Your task to perform on an android device: Search for pizza restaurants on Maps Image 0: 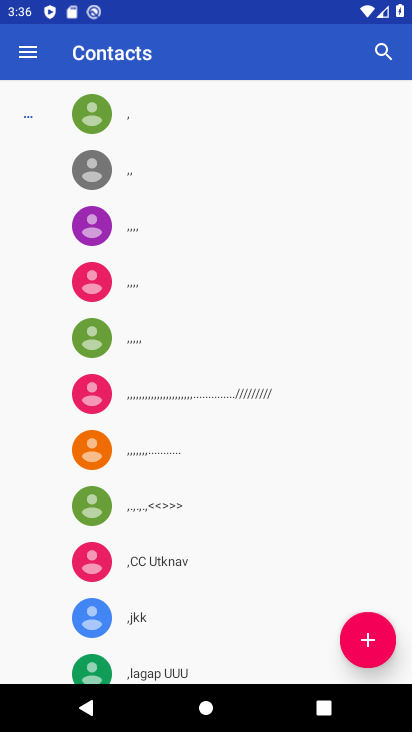
Step 0: press home button
Your task to perform on an android device: Search for pizza restaurants on Maps Image 1: 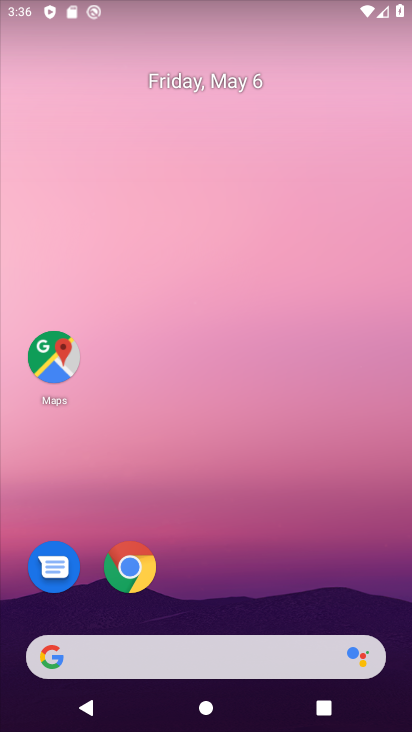
Step 1: click (57, 366)
Your task to perform on an android device: Search for pizza restaurants on Maps Image 2: 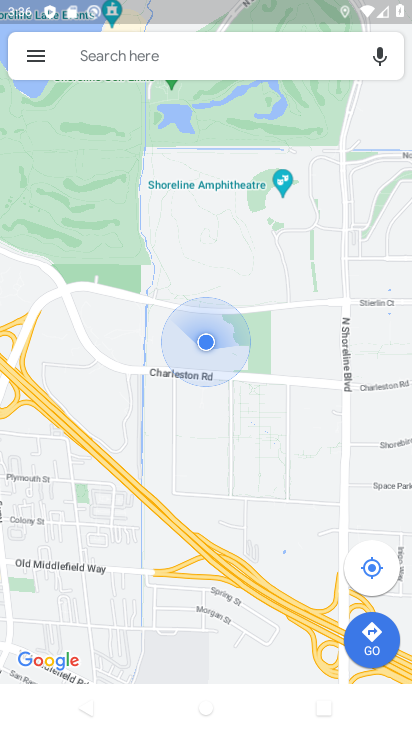
Step 2: click (109, 51)
Your task to perform on an android device: Search for pizza restaurants on Maps Image 3: 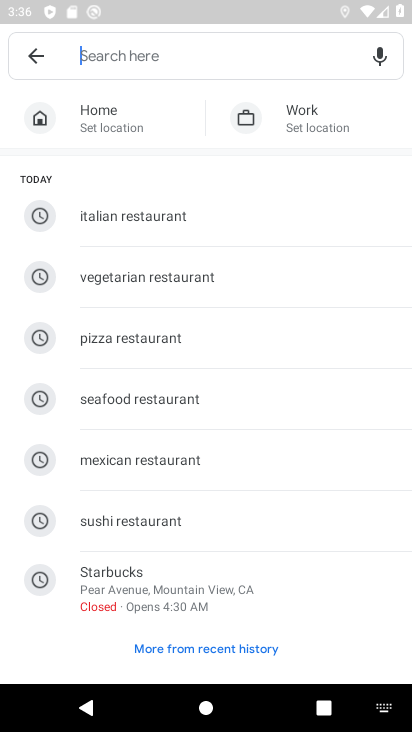
Step 3: click (139, 342)
Your task to perform on an android device: Search for pizza restaurants on Maps Image 4: 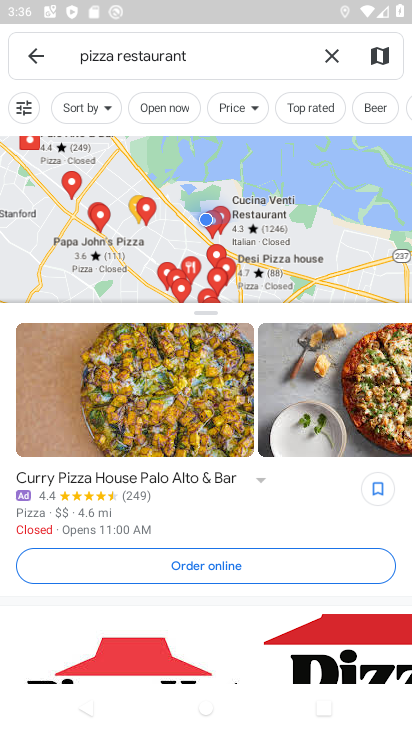
Step 4: task complete